Your task to perform on an android device: move a message to another label in the gmail app Image 0: 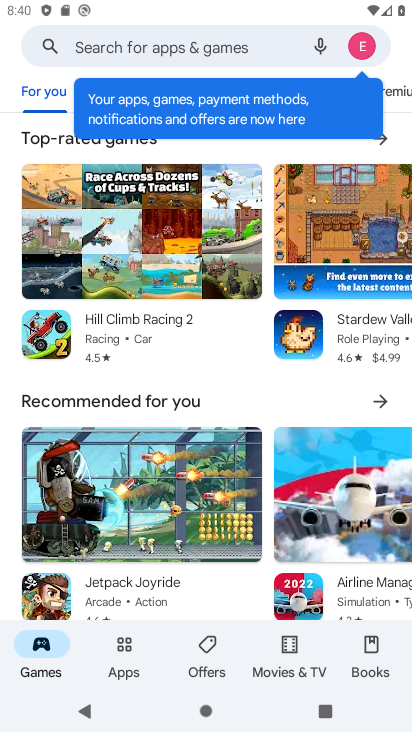
Step 0: press home button
Your task to perform on an android device: move a message to another label in the gmail app Image 1: 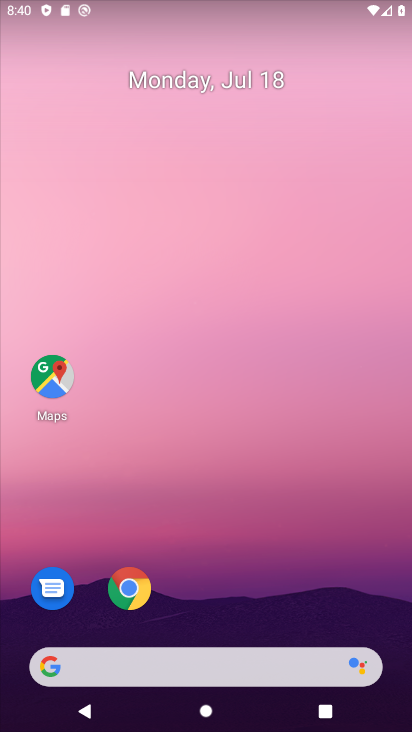
Step 1: click (206, 37)
Your task to perform on an android device: move a message to another label in the gmail app Image 2: 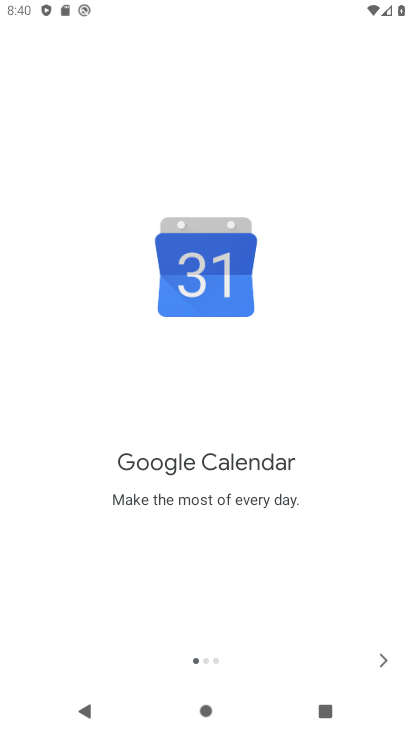
Step 2: press home button
Your task to perform on an android device: move a message to another label in the gmail app Image 3: 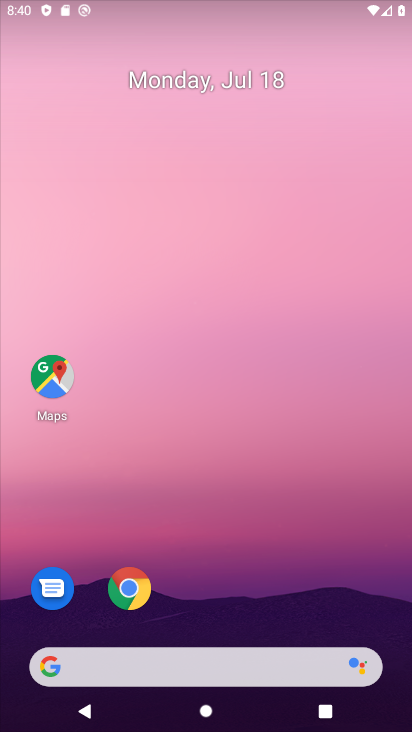
Step 3: drag from (274, 593) to (261, 347)
Your task to perform on an android device: move a message to another label in the gmail app Image 4: 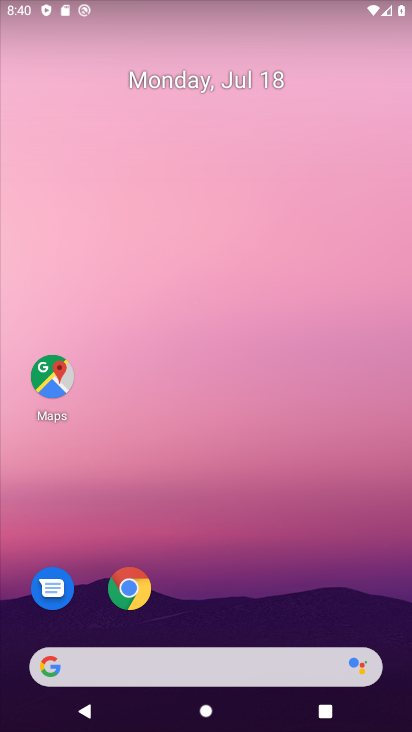
Step 4: drag from (272, 583) to (263, 64)
Your task to perform on an android device: move a message to another label in the gmail app Image 5: 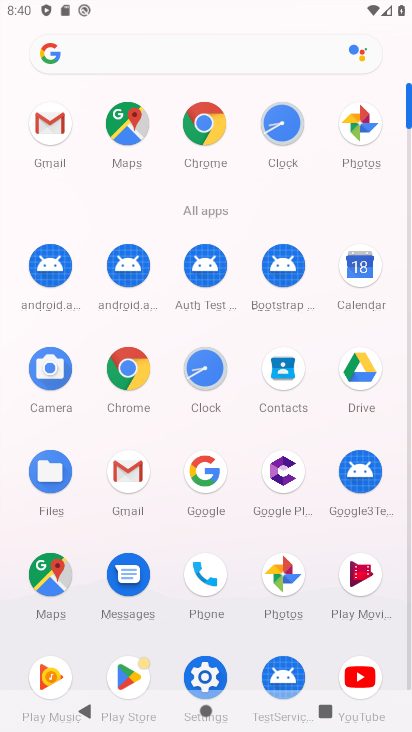
Step 5: click (62, 123)
Your task to perform on an android device: move a message to another label in the gmail app Image 6: 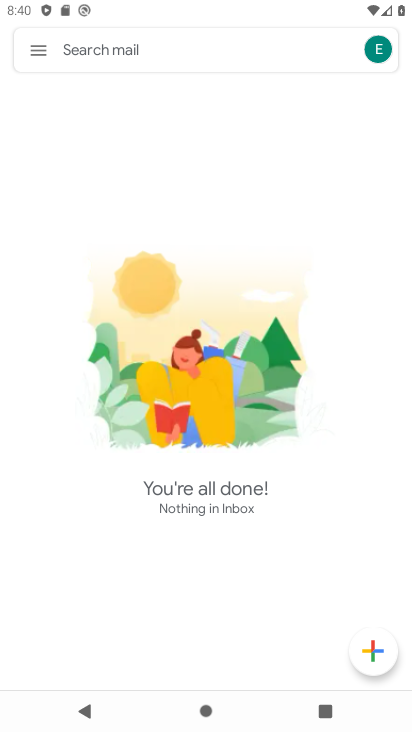
Step 6: task complete